Your task to perform on an android device: Check the weather Image 0: 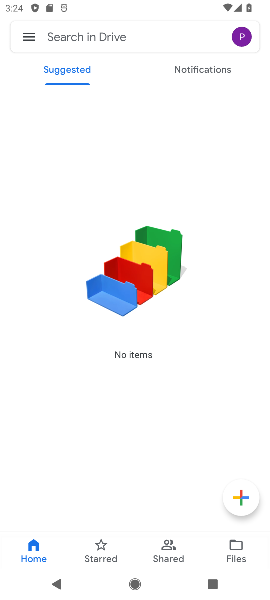
Step 0: press home button
Your task to perform on an android device: Check the weather Image 1: 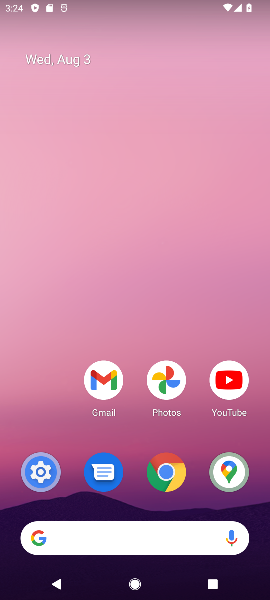
Step 1: drag from (200, 495) to (61, 30)
Your task to perform on an android device: Check the weather Image 2: 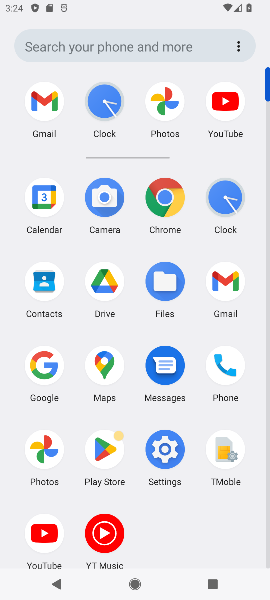
Step 2: click (46, 373)
Your task to perform on an android device: Check the weather Image 3: 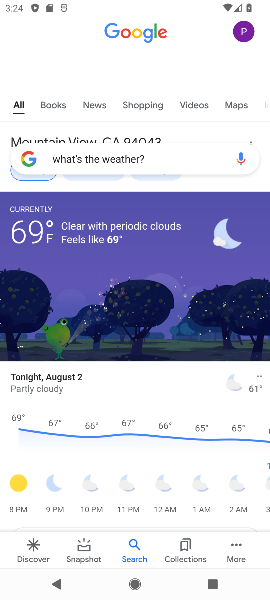
Step 3: press back button
Your task to perform on an android device: Check the weather Image 4: 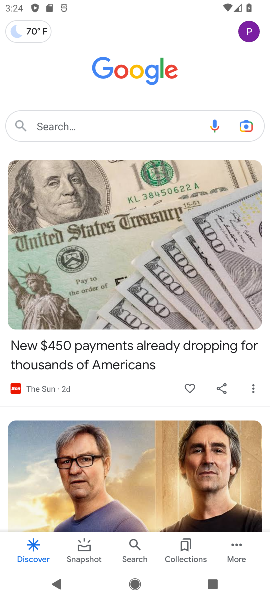
Step 4: click (36, 125)
Your task to perform on an android device: Check the weather Image 5: 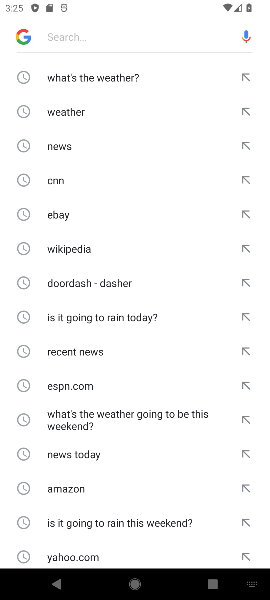
Step 5: type "Check the weather"
Your task to perform on an android device: Check the weather Image 6: 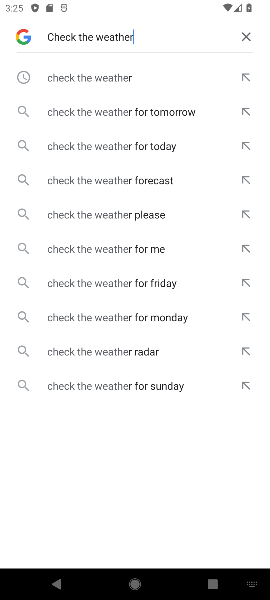
Step 6: click (100, 82)
Your task to perform on an android device: Check the weather Image 7: 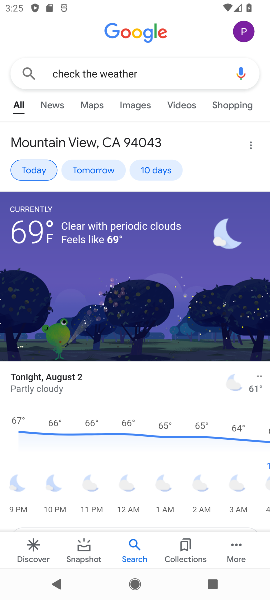
Step 7: task complete